Your task to perform on an android device: set the timer Image 0: 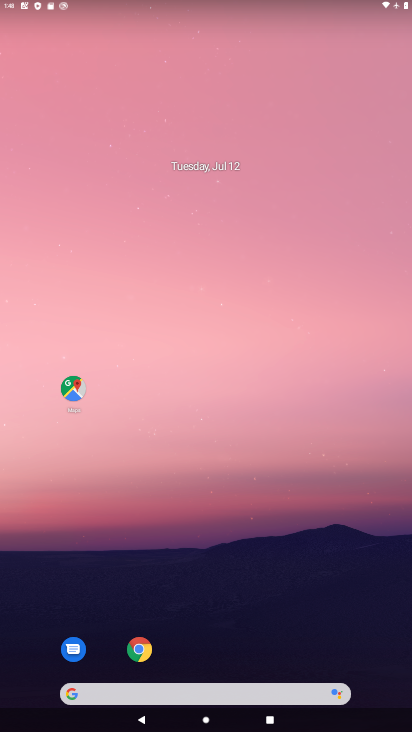
Step 0: drag from (278, 641) to (206, 230)
Your task to perform on an android device: set the timer Image 1: 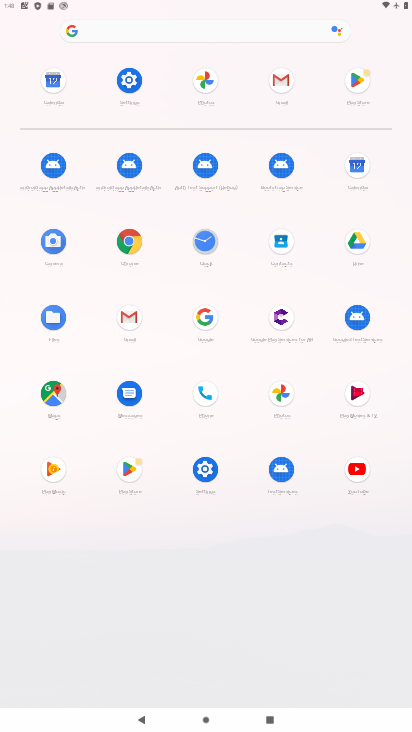
Step 1: click (120, 96)
Your task to perform on an android device: set the timer Image 2: 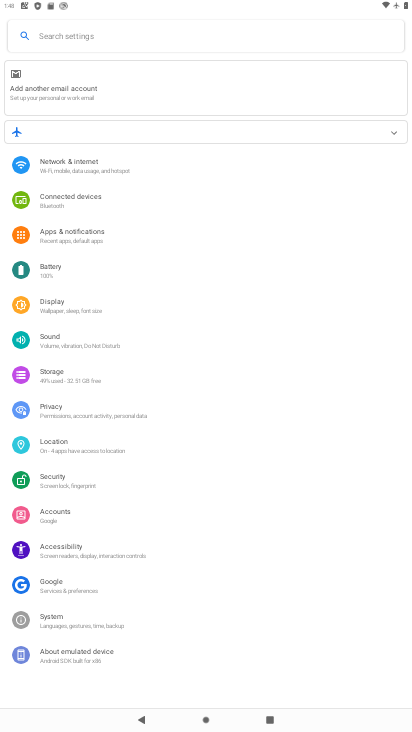
Step 2: press home button
Your task to perform on an android device: set the timer Image 3: 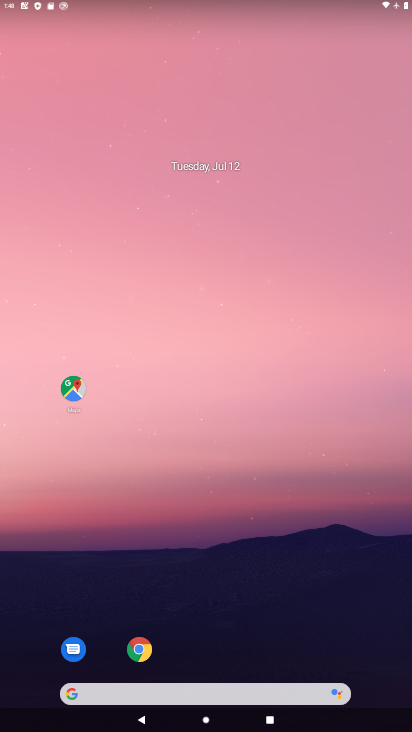
Step 3: drag from (264, 660) to (254, 108)
Your task to perform on an android device: set the timer Image 4: 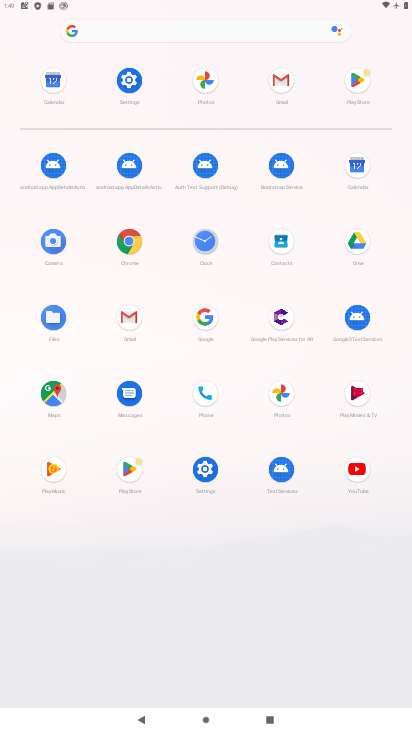
Step 4: click (211, 245)
Your task to perform on an android device: set the timer Image 5: 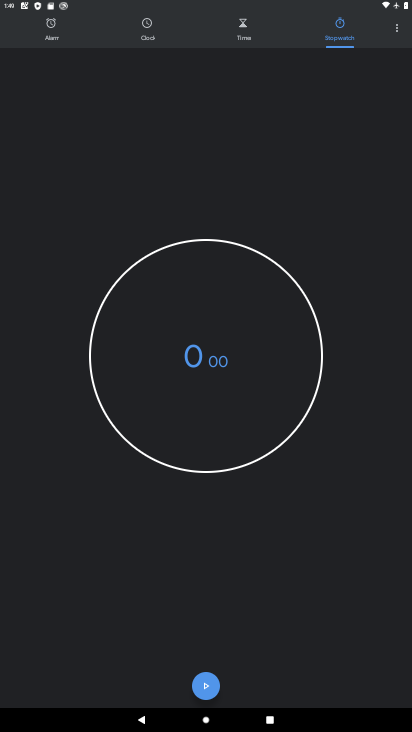
Step 5: click (236, 42)
Your task to perform on an android device: set the timer Image 6: 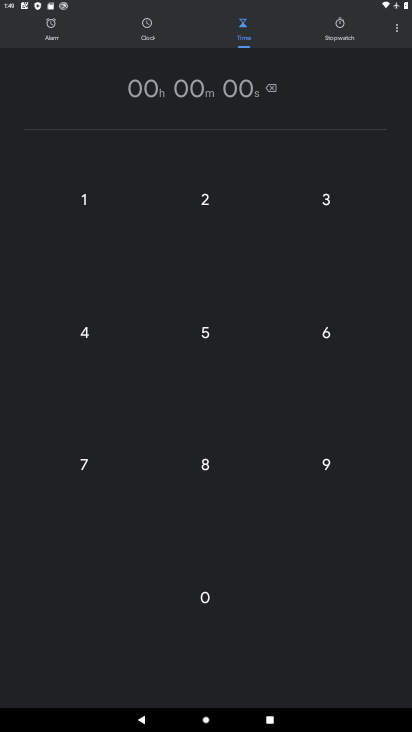
Step 6: task complete